Your task to perform on an android device: Search for seafood restaurants on Google Maps Image 0: 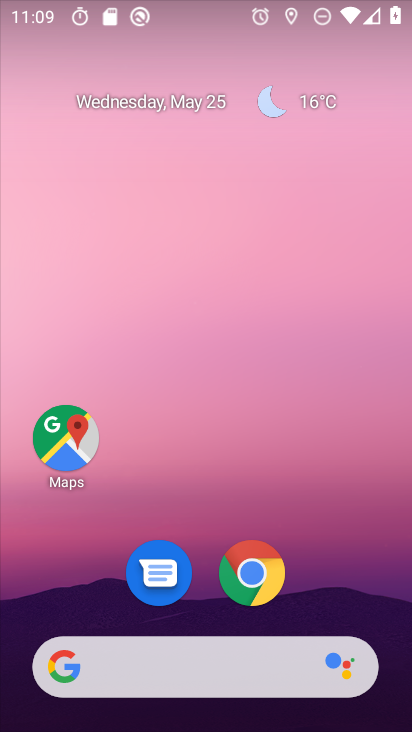
Step 0: click (62, 442)
Your task to perform on an android device: Search for seafood restaurants on Google Maps Image 1: 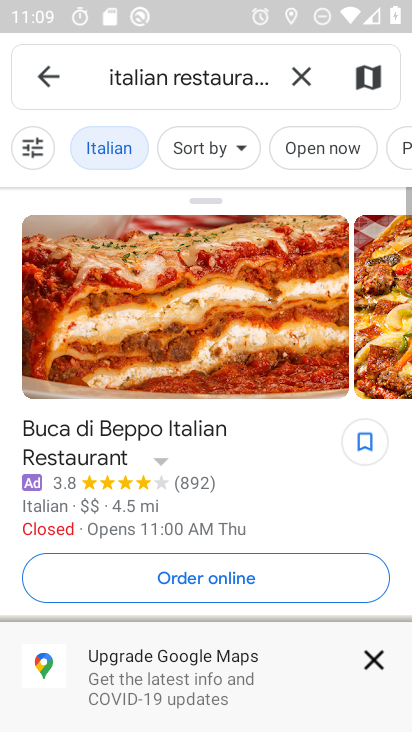
Step 1: click (300, 74)
Your task to perform on an android device: Search for seafood restaurants on Google Maps Image 2: 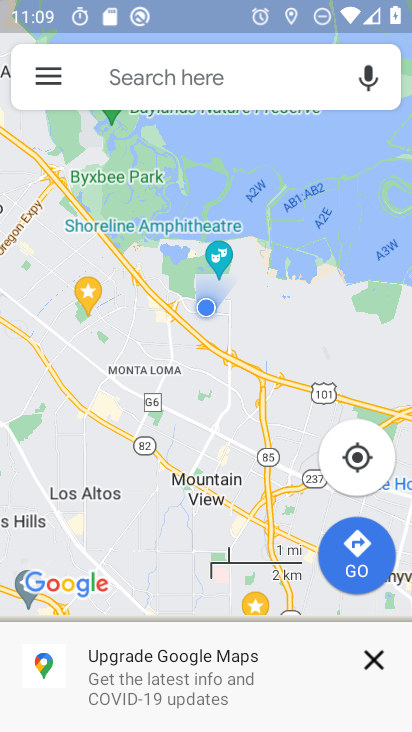
Step 2: click (108, 84)
Your task to perform on an android device: Search for seafood restaurants on Google Maps Image 3: 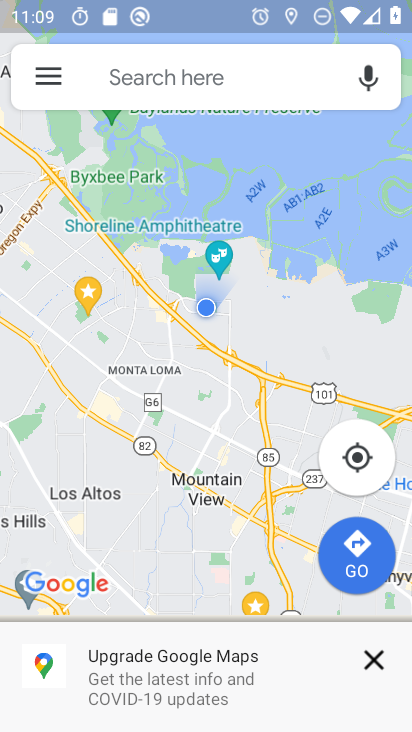
Step 3: click (115, 71)
Your task to perform on an android device: Search for seafood restaurants on Google Maps Image 4: 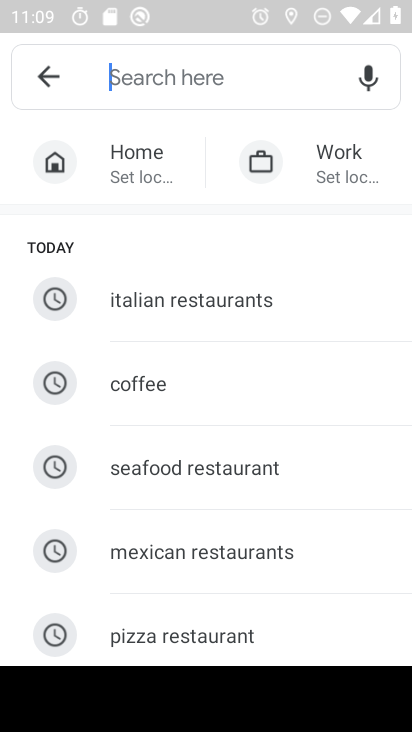
Step 4: type "seafood restaurants"
Your task to perform on an android device: Search for seafood restaurants on Google Maps Image 5: 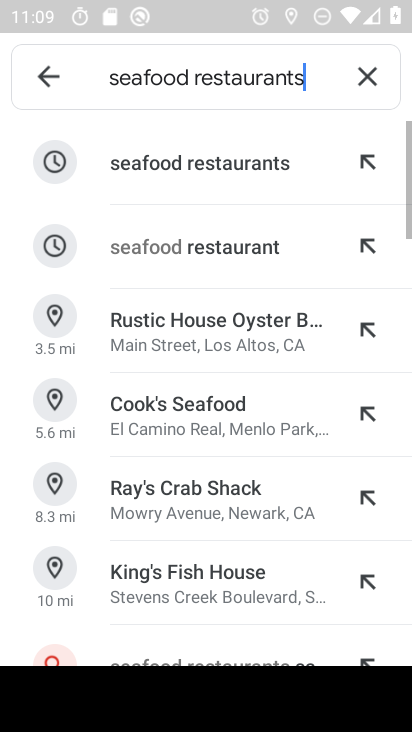
Step 5: click (176, 162)
Your task to perform on an android device: Search for seafood restaurants on Google Maps Image 6: 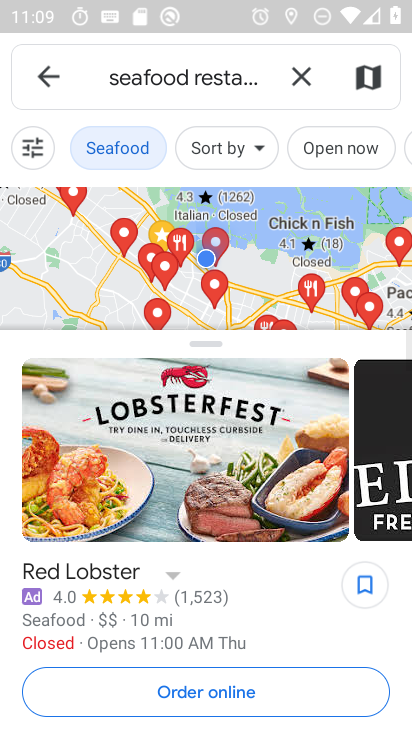
Step 6: task complete